Your task to perform on an android device: set the timer Image 0: 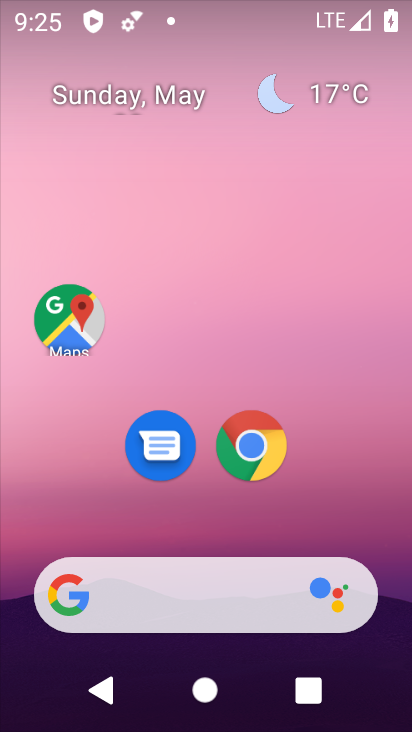
Step 0: drag from (214, 458) to (230, 224)
Your task to perform on an android device: set the timer Image 1: 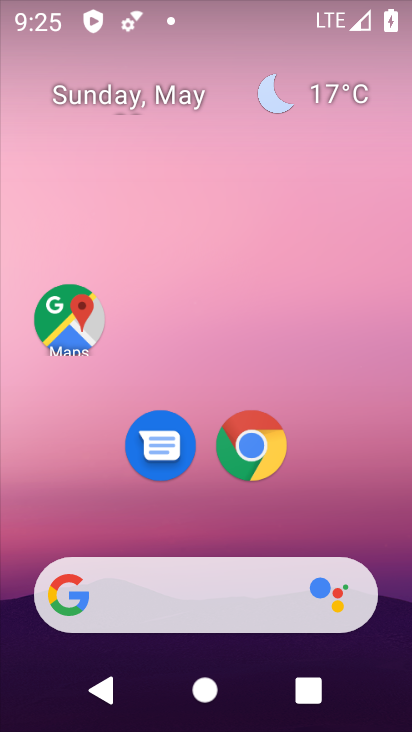
Step 1: drag from (220, 509) to (212, 329)
Your task to perform on an android device: set the timer Image 2: 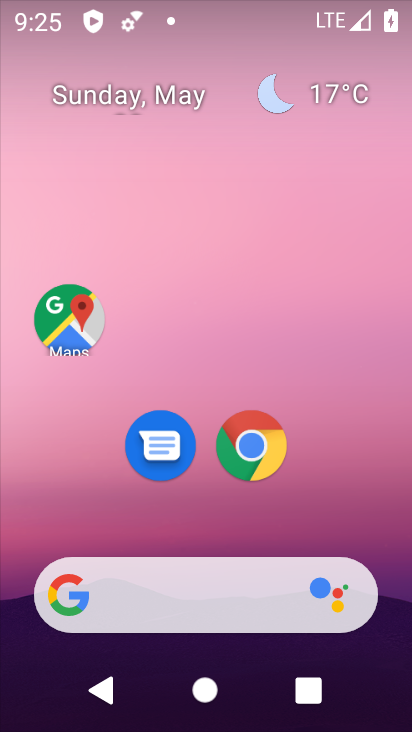
Step 2: drag from (221, 556) to (238, 126)
Your task to perform on an android device: set the timer Image 3: 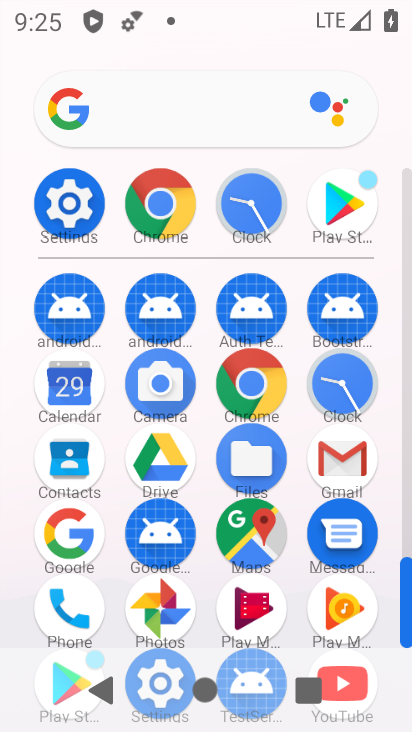
Step 3: click (336, 385)
Your task to perform on an android device: set the timer Image 4: 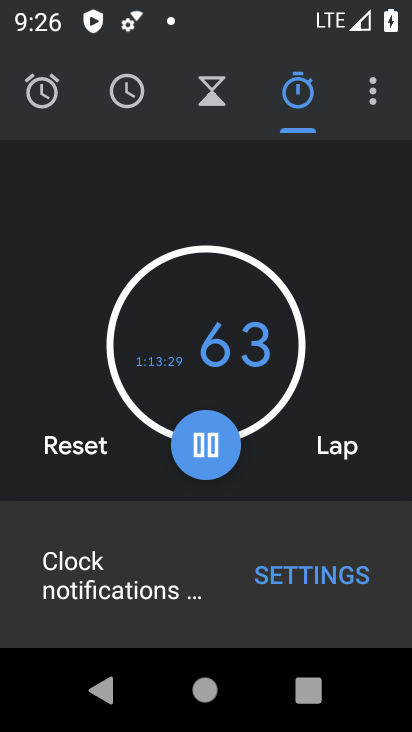
Step 4: click (215, 95)
Your task to perform on an android device: set the timer Image 5: 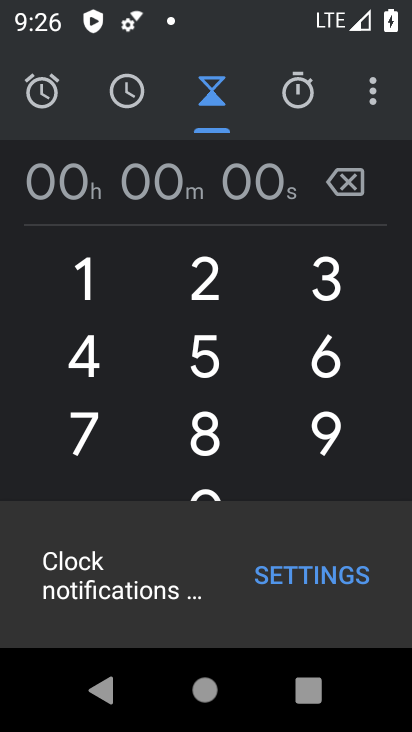
Step 5: click (197, 297)
Your task to perform on an android device: set the timer Image 6: 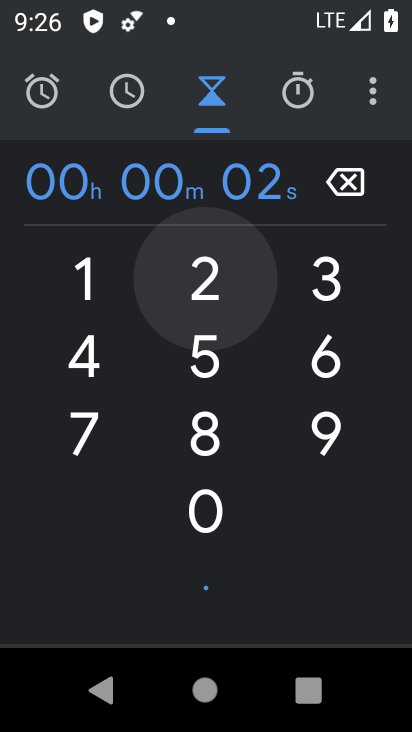
Step 6: click (332, 352)
Your task to perform on an android device: set the timer Image 7: 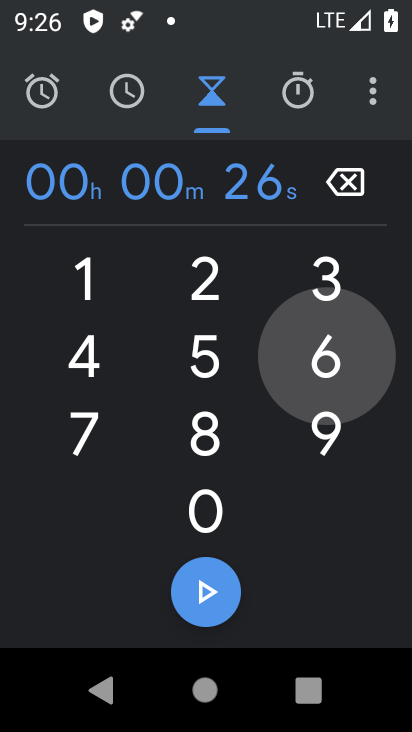
Step 7: click (215, 432)
Your task to perform on an android device: set the timer Image 8: 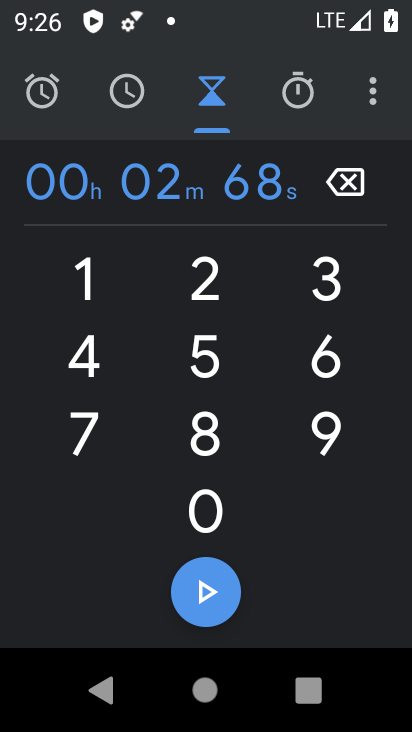
Step 8: click (217, 601)
Your task to perform on an android device: set the timer Image 9: 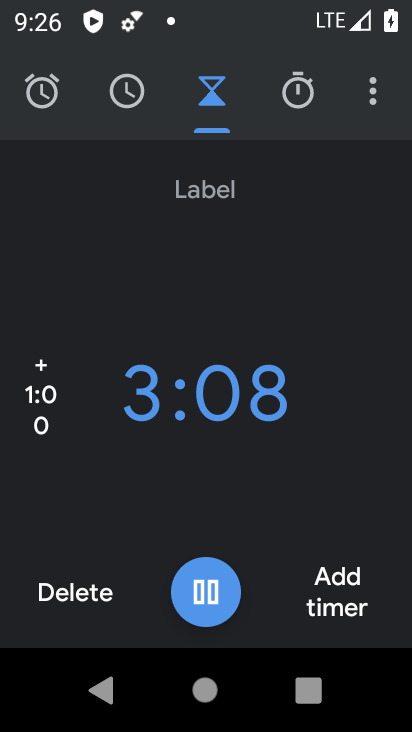
Step 9: task complete